Your task to perform on an android device: toggle location history Image 0: 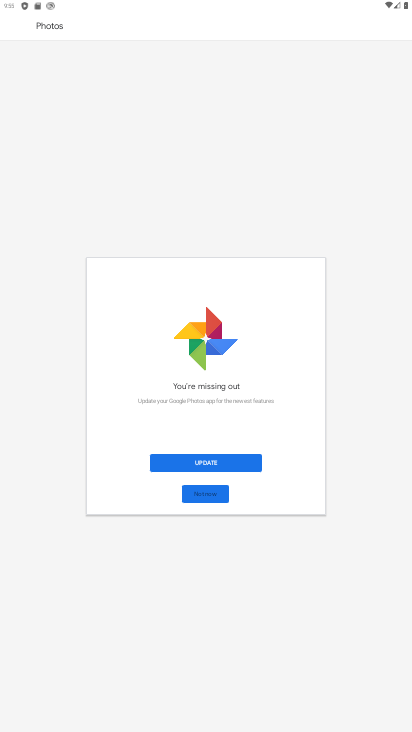
Step 0: press home button
Your task to perform on an android device: toggle location history Image 1: 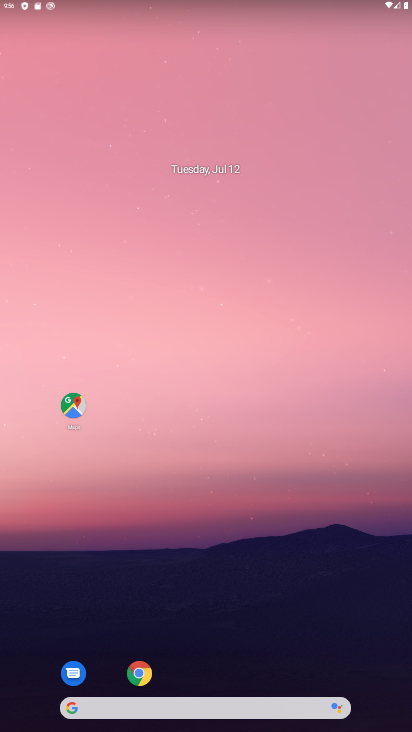
Step 1: drag from (266, 596) to (198, 122)
Your task to perform on an android device: toggle location history Image 2: 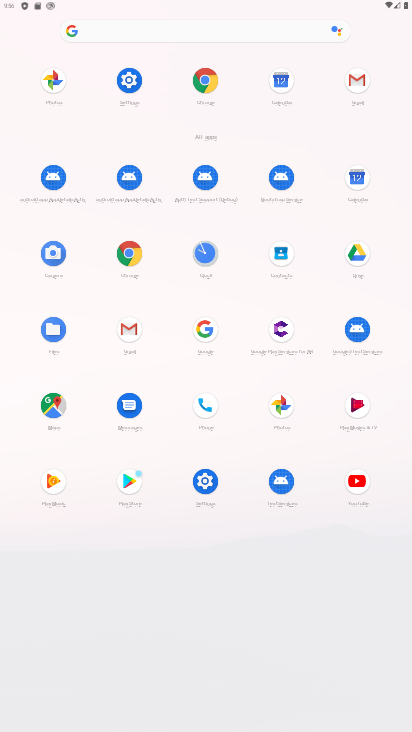
Step 2: click (137, 78)
Your task to perform on an android device: toggle location history Image 3: 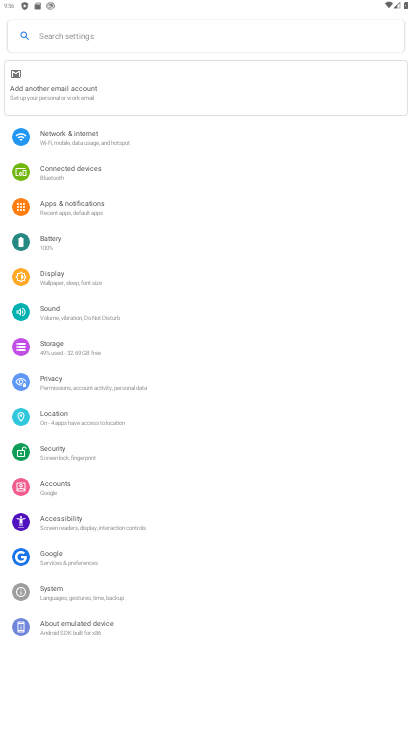
Step 3: click (45, 425)
Your task to perform on an android device: toggle location history Image 4: 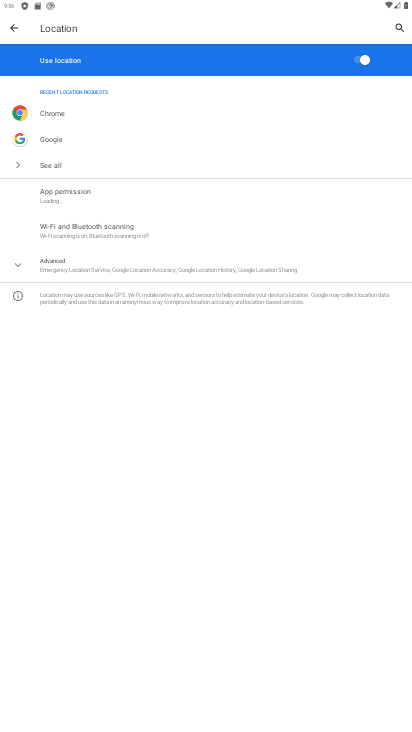
Step 4: click (45, 272)
Your task to perform on an android device: toggle location history Image 5: 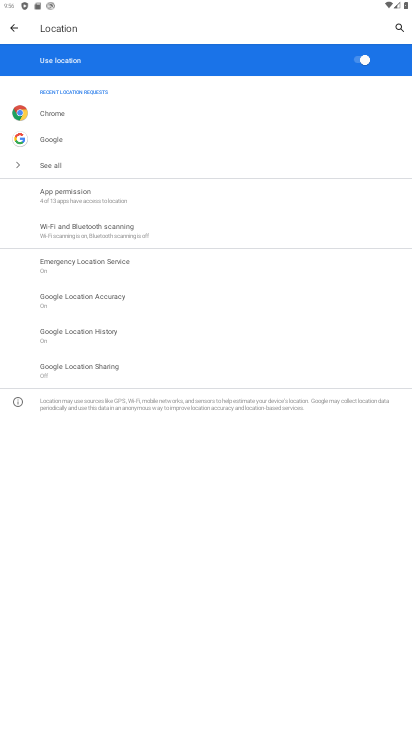
Step 5: click (106, 330)
Your task to perform on an android device: toggle location history Image 6: 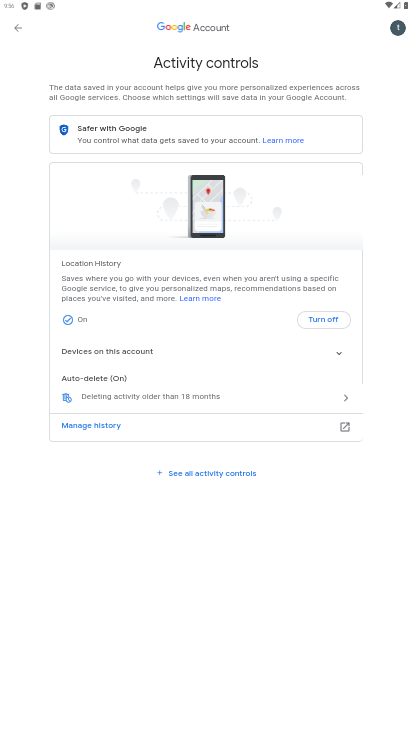
Step 6: click (329, 316)
Your task to perform on an android device: toggle location history Image 7: 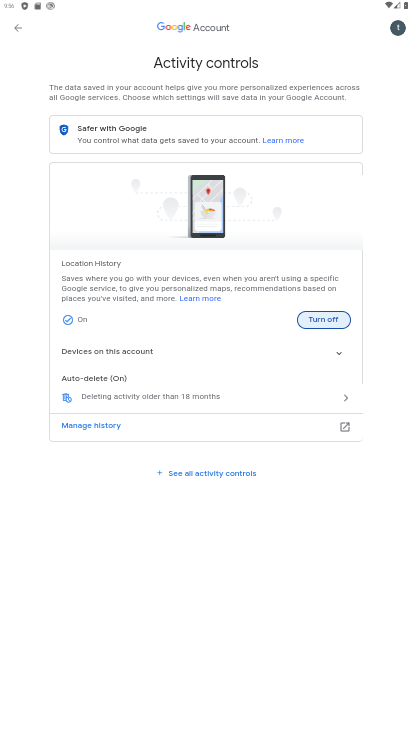
Step 7: click (325, 316)
Your task to perform on an android device: toggle location history Image 8: 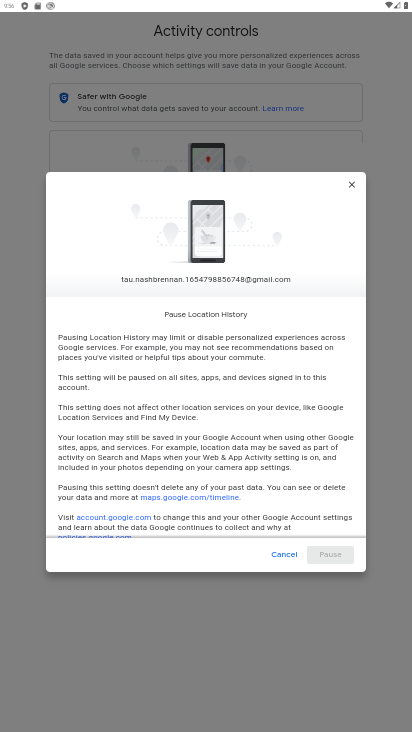
Step 8: drag from (296, 515) to (307, 176)
Your task to perform on an android device: toggle location history Image 9: 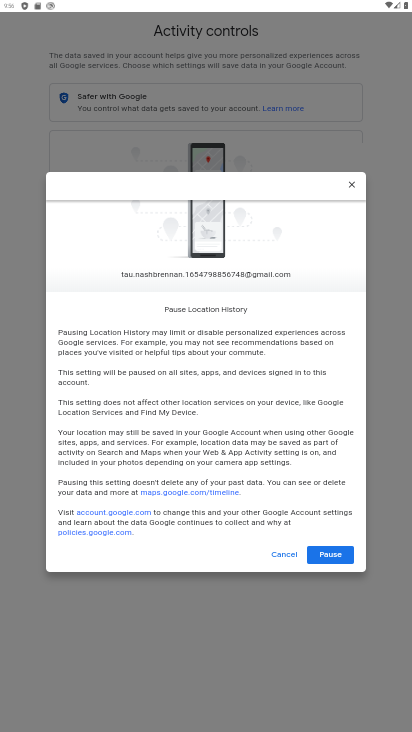
Step 9: click (328, 555)
Your task to perform on an android device: toggle location history Image 10: 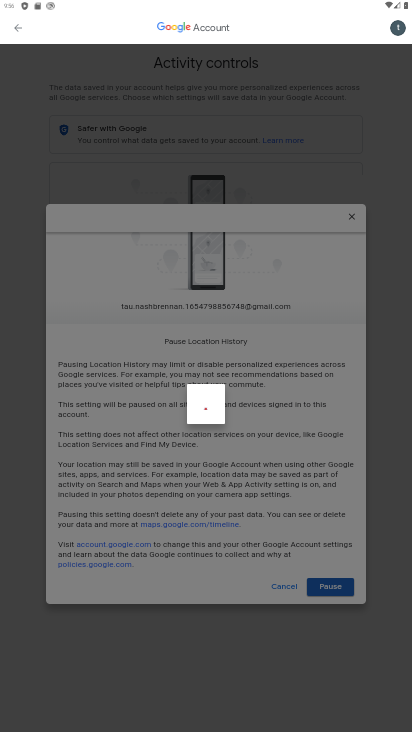
Step 10: click (327, 548)
Your task to perform on an android device: toggle location history Image 11: 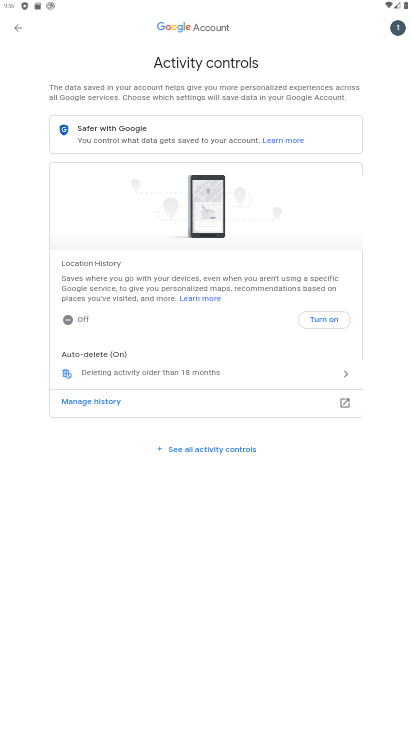
Step 11: task complete